Your task to perform on an android device: turn off priority inbox in the gmail app Image 0: 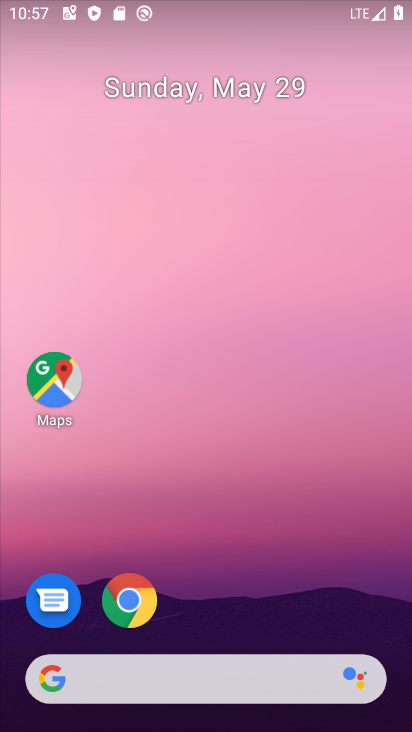
Step 0: click (306, 0)
Your task to perform on an android device: turn off priority inbox in the gmail app Image 1: 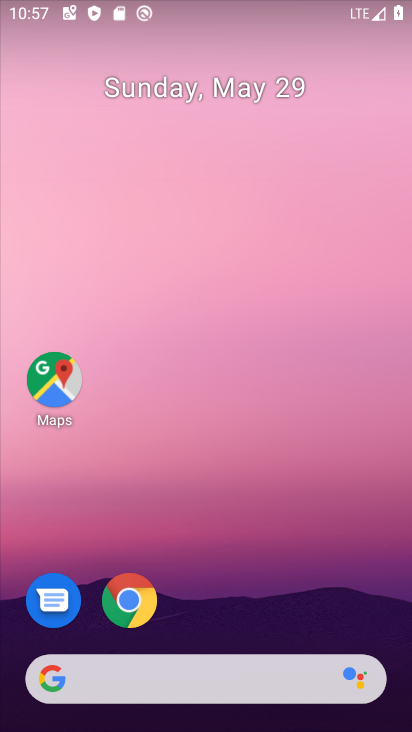
Step 1: drag from (270, 596) to (267, 165)
Your task to perform on an android device: turn off priority inbox in the gmail app Image 2: 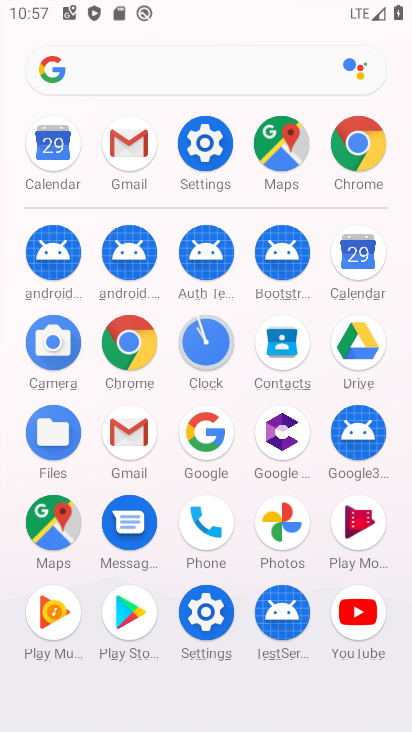
Step 2: click (130, 144)
Your task to perform on an android device: turn off priority inbox in the gmail app Image 3: 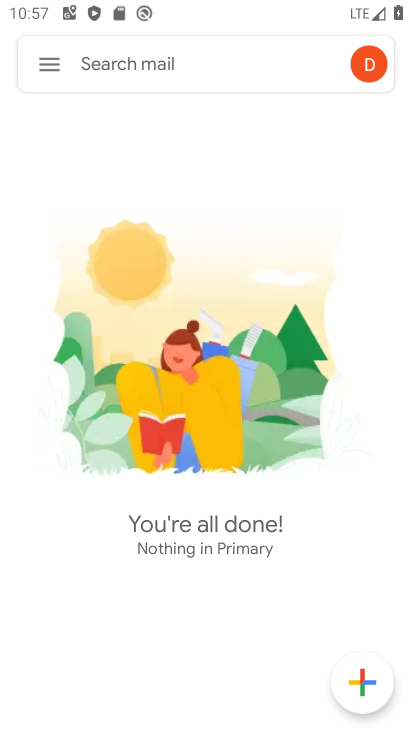
Step 3: click (32, 52)
Your task to perform on an android device: turn off priority inbox in the gmail app Image 4: 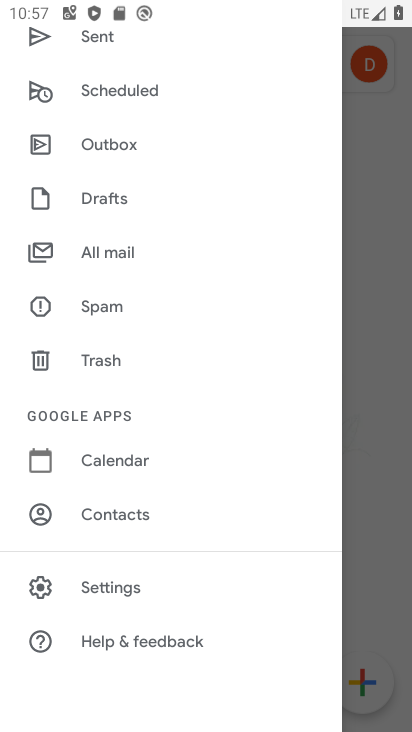
Step 4: click (124, 603)
Your task to perform on an android device: turn off priority inbox in the gmail app Image 5: 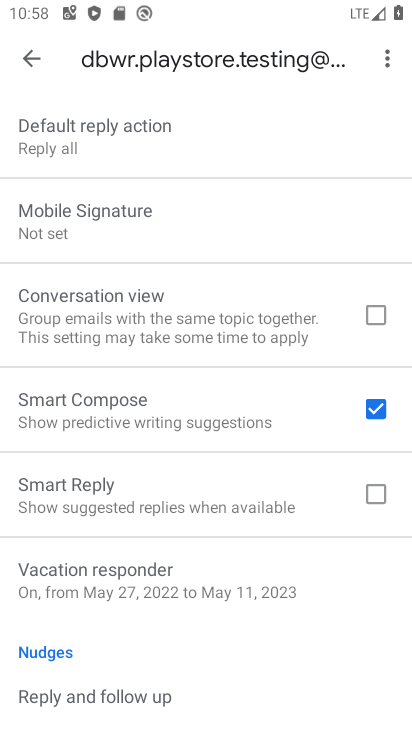
Step 5: drag from (221, 203) to (147, 497)
Your task to perform on an android device: turn off priority inbox in the gmail app Image 6: 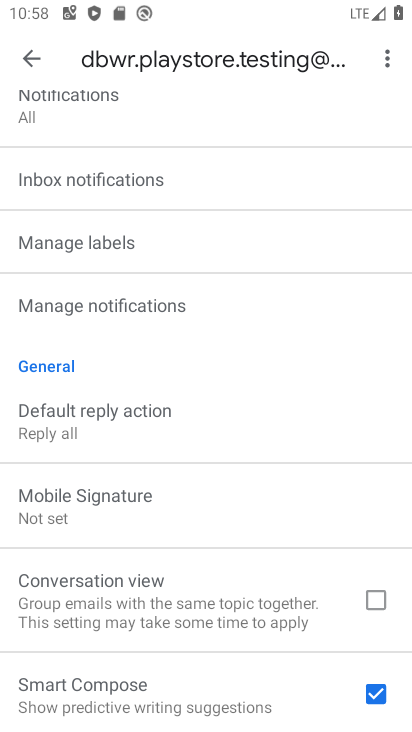
Step 6: drag from (184, 70) to (138, 341)
Your task to perform on an android device: turn off priority inbox in the gmail app Image 7: 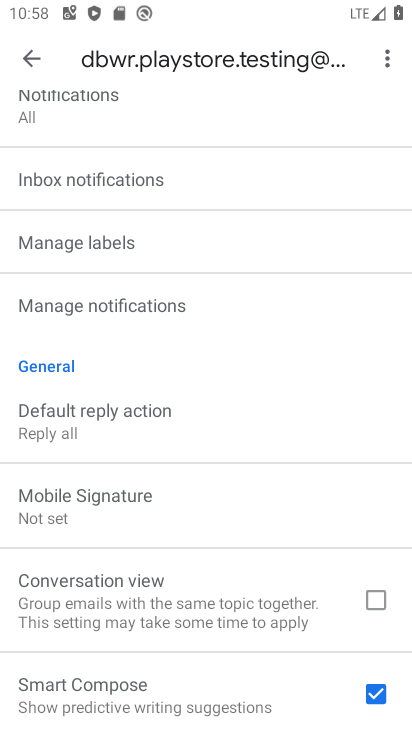
Step 7: drag from (196, 170) to (233, 557)
Your task to perform on an android device: turn off priority inbox in the gmail app Image 8: 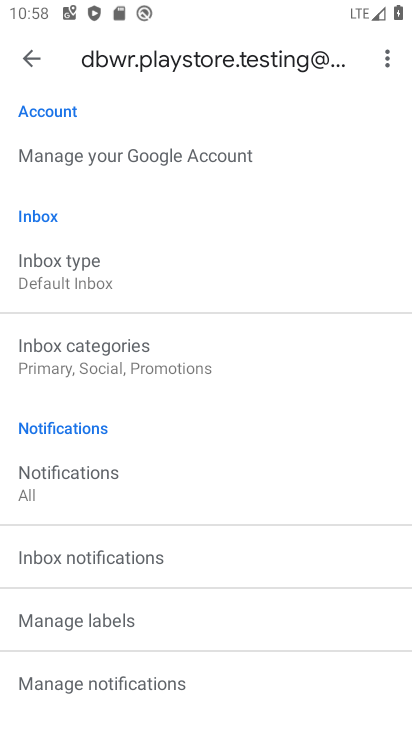
Step 8: click (86, 294)
Your task to perform on an android device: turn off priority inbox in the gmail app Image 9: 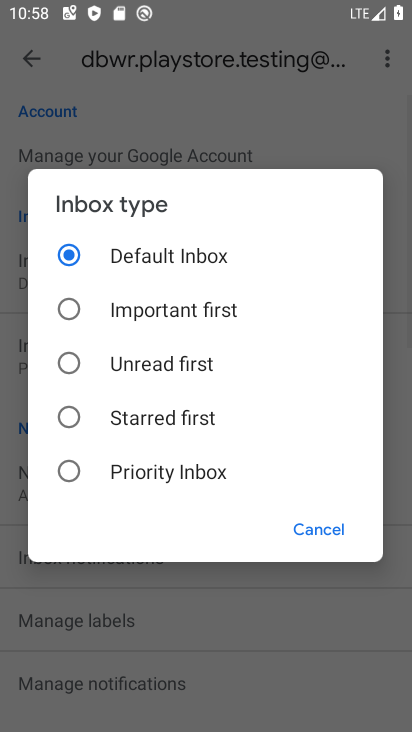
Step 9: click (109, 465)
Your task to perform on an android device: turn off priority inbox in the gmail app Image 10: 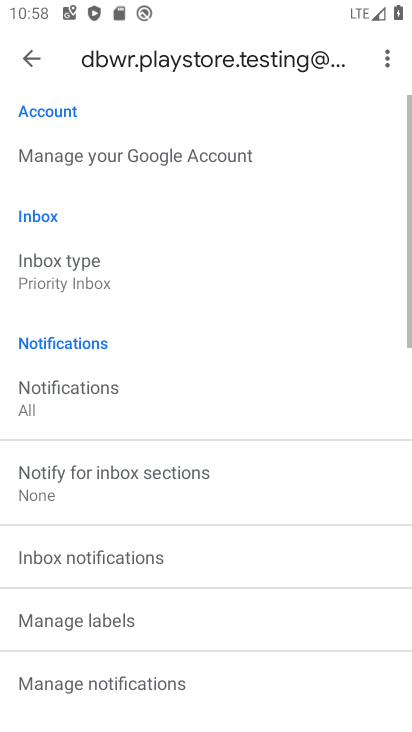
Step 10: click (83, 293)
Your task to perform on an android device: turn off priority inbox in the gmail app Image 11: 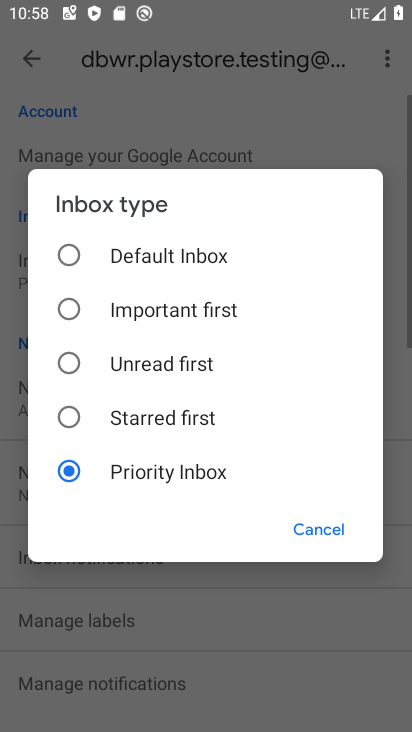
Step 11: click (90, 267)
Your task to perform on an android device: turn off priority inbox in the gmail app Image 12: 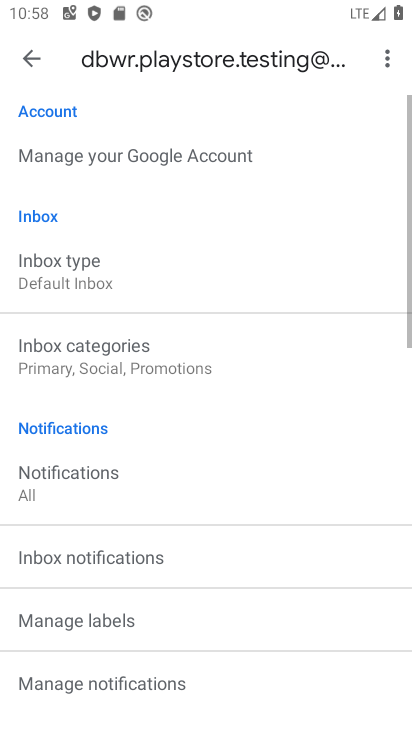
Step 12: task complete